Your task to perform on an android device: open sync settings in chrome Image 0: 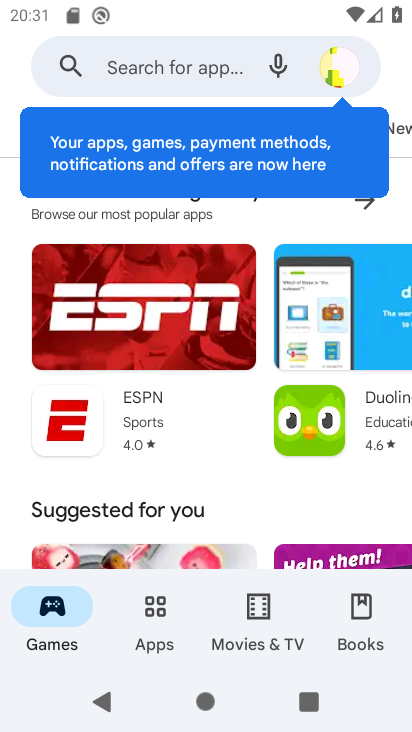
Step 0: press home button
Your task to perform on an android device: open sync settings in chrome Image 1: 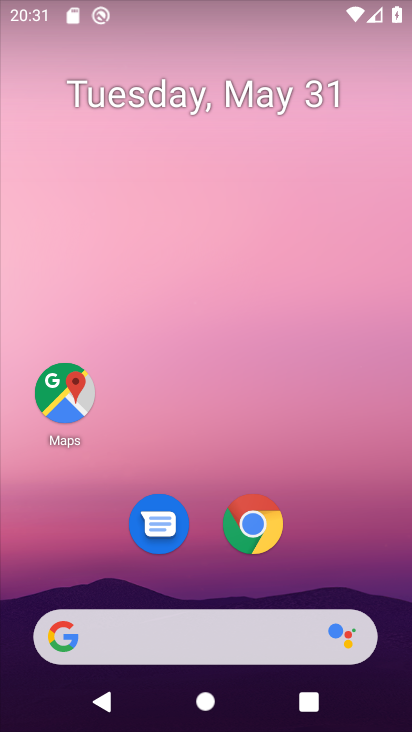
Step 1: click (262, 532)
Your task to perform on an android device: open sync settings in chrome Image 2: 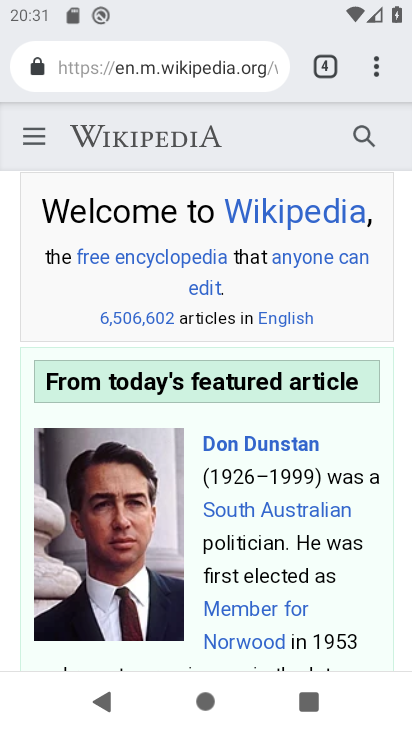
Step 2: click (371, 60)
Your task to perform on an android device: open sync settings in chrome Image 3: 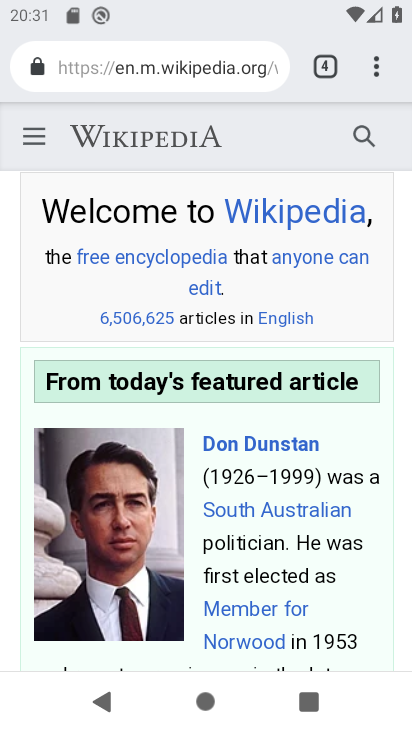
Step 3: click (371, 60)
Your task to perform on an android device: open sync settings in chrome Image 4: 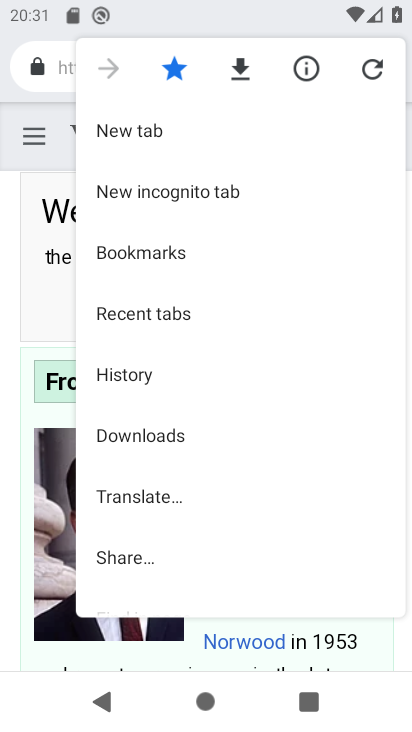
Step 4: drag from (210, 440) to (242, 172)
Your task to perform on an android device: open sync settings in chrome Image 5: 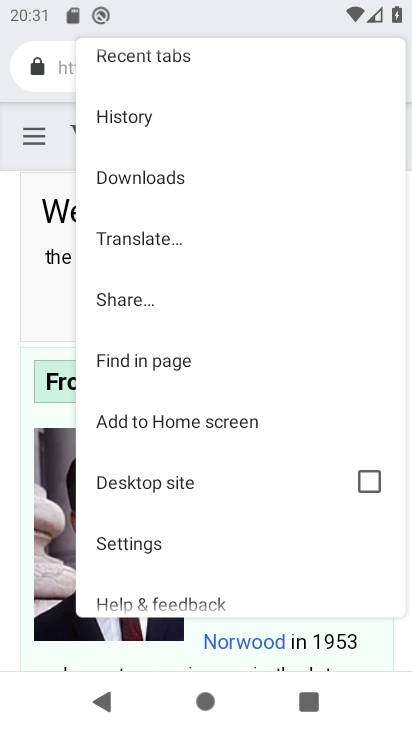
Step 5: click (168, 540)
Your task to perform on an android device: open sync settings in chrome Image 6: 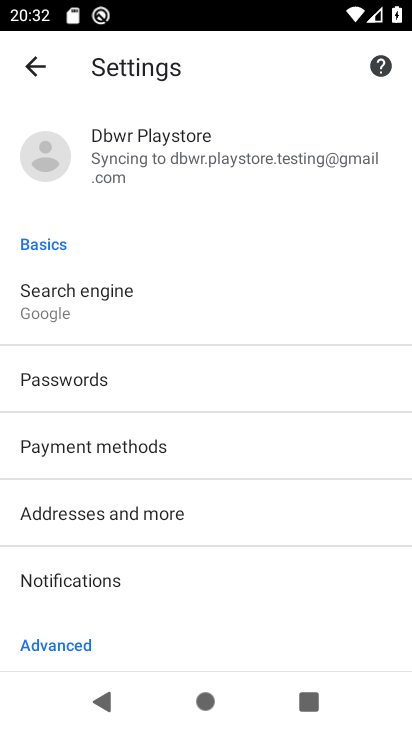
Step 6: click (240, 150)
Your task to perform on an android device: open sync settings in chrome Image 7: 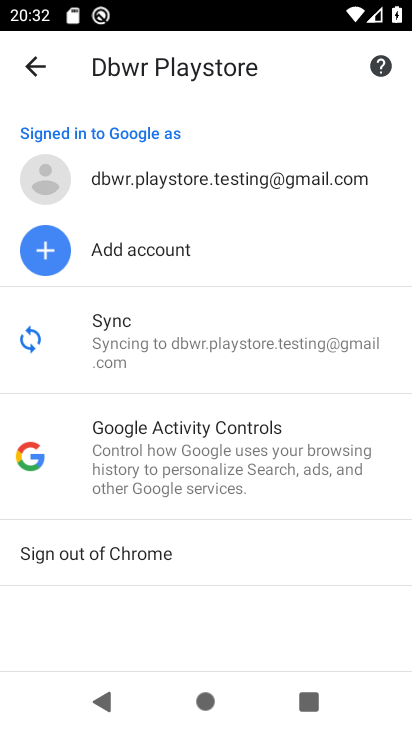
Step 7: click (163, 335)
Your task to perform on an android device: open sync settings in chrome Image 8: 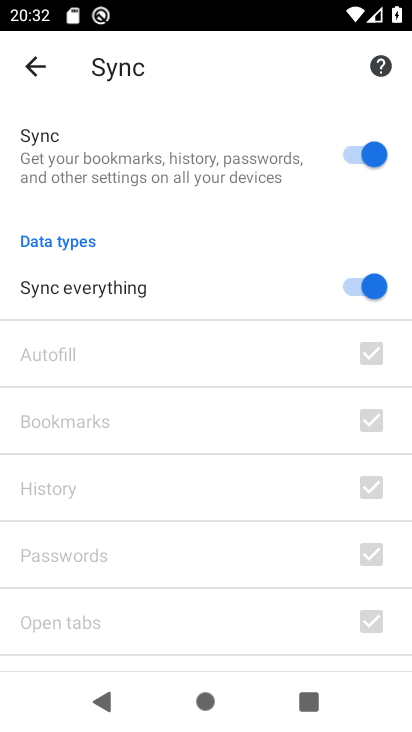
Step 8: task complete